Your task to perform on an android device: add a contact in the contacts app Image 0: 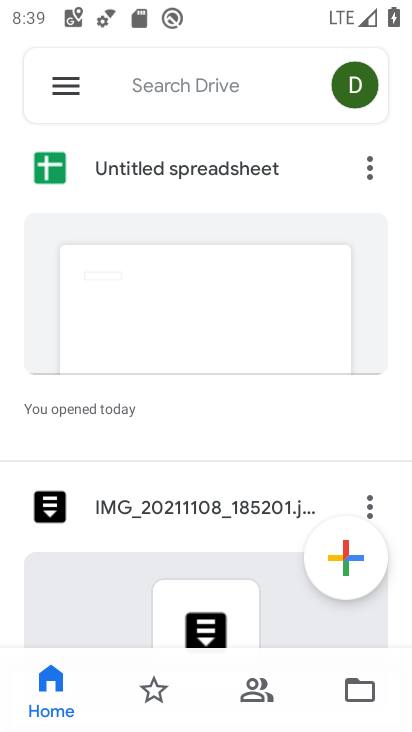
Step 0: press home button
Your task to perform on an android device: add a contact in the contacts app Image 1: 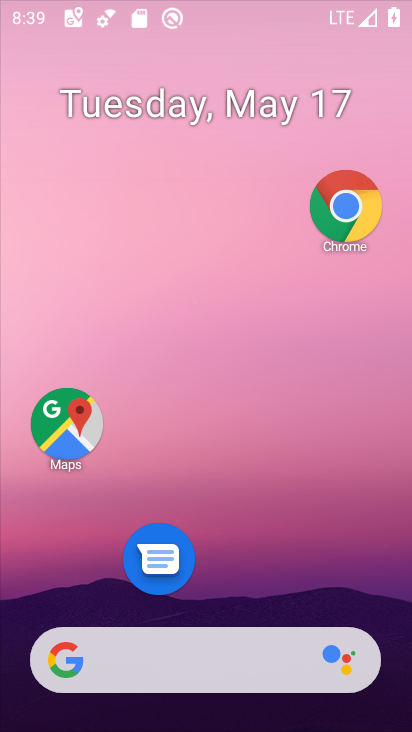
Step 1: drag from (286, 614) to (333, 193)
Your task to perform on an android device: add a contact in the contacts app Image 2: 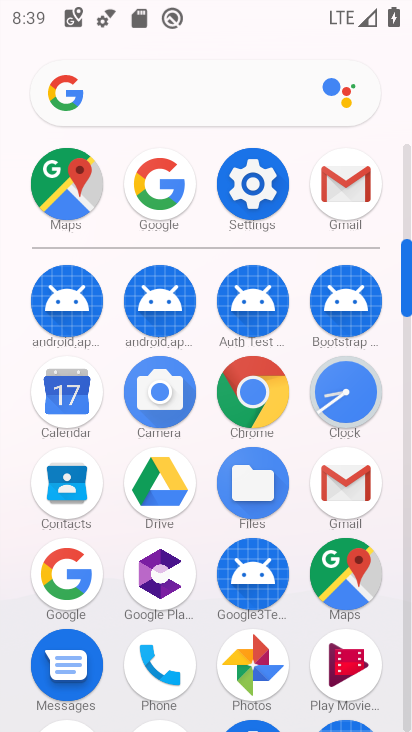
Step 2: click (72, 486)
Your task to perform on an android device: add a contact in the contacts app Image 3: 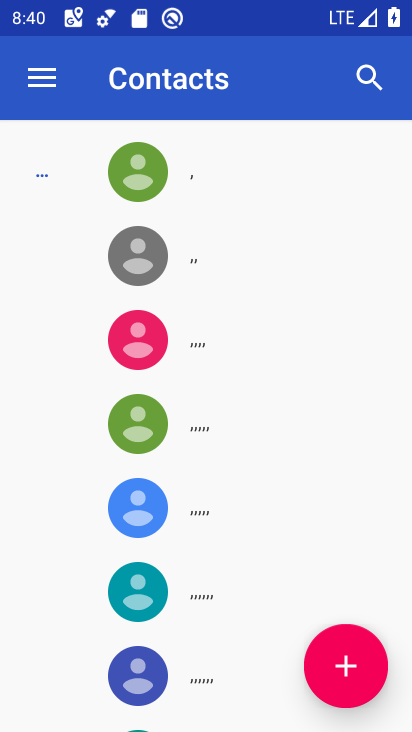
Step 3: click (373, 661)
Your task to perform on an android device: add a contact in the contacts app Image 4: 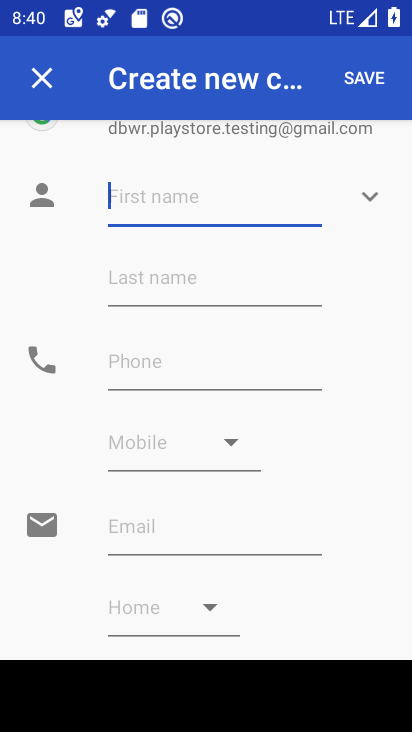
Step 4: type "hgmdfug"
Your task to perform on an android device: add a contact in the contacts app Image 5: 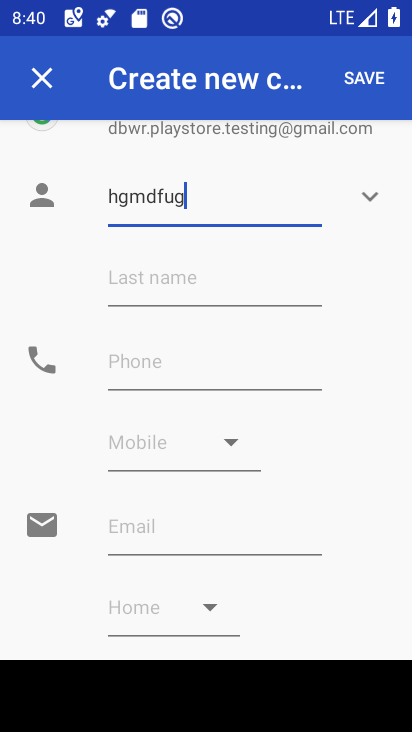
Step 5: click (152, 356)
Your task to perform on an android device: add a contact in the contacts app Image 6: 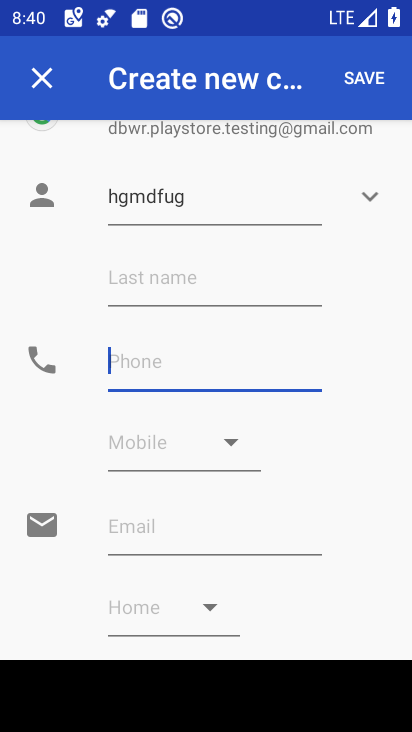
Step 6: type "09878749876"
Your task to perform on an android device: add a contact in the contacts app Image 7: 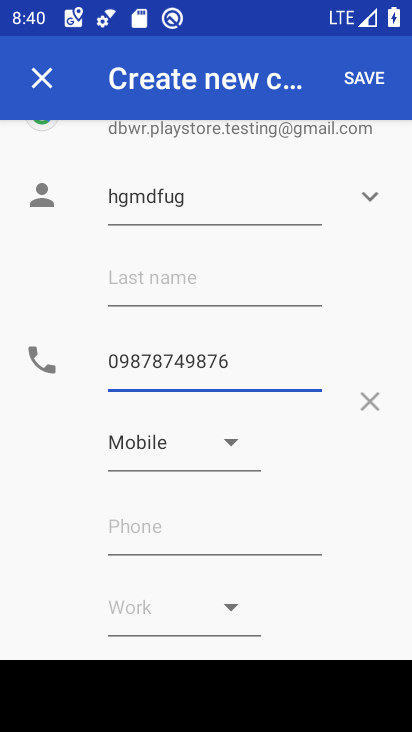
Step 7: click (350, 73)
Your task to perform on an android device: add a contact in the contacts app Image 8: 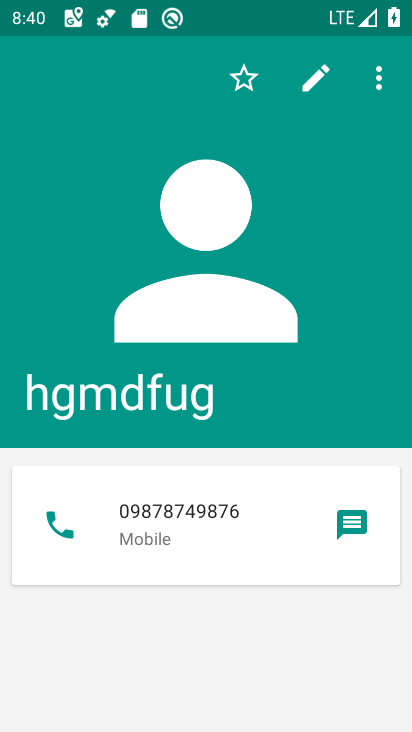
Step 8: task complete